Your task to perform on an android device: show emergency info Image 0: 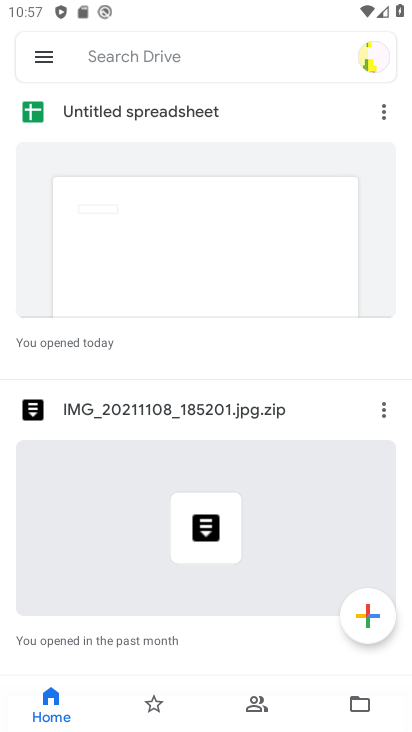
Step 0: press home button
Your task to perform on an android device: show emergency info Image 1: 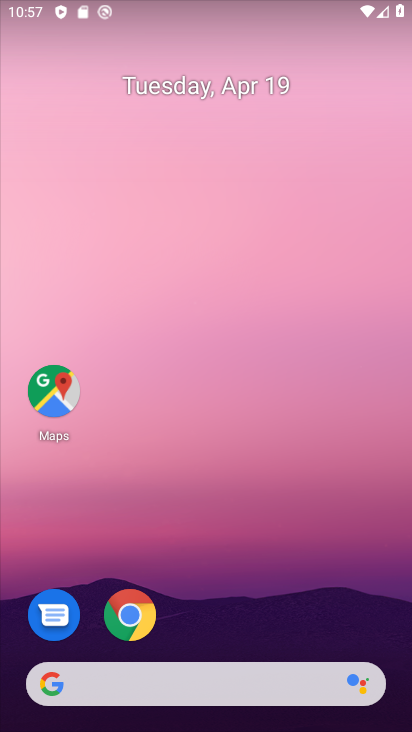
Step 1: click (209, 142)
Your task to perform on an android device: show emergency info Image 2: 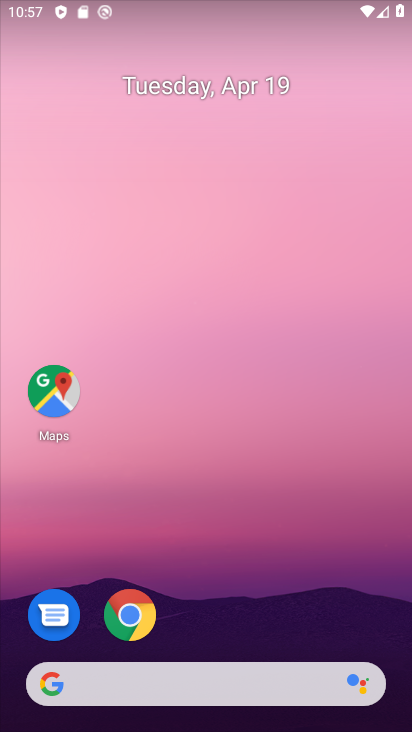
Step 2: drag from (203, 589) to (199, 134)
Your task to perform on an android device: show emergency info Image 3: 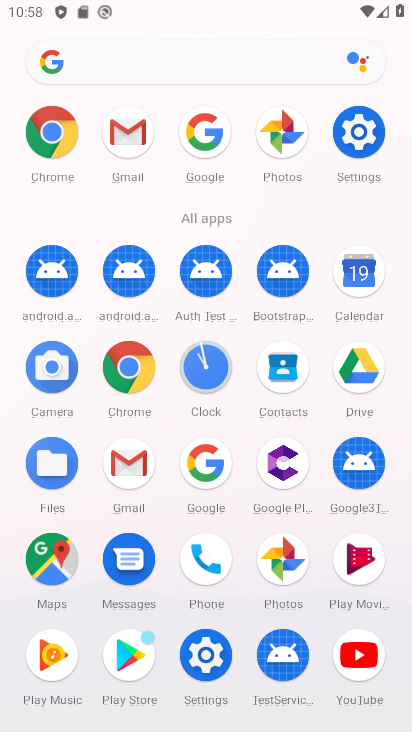
Step 3: click (354, 114)
Your task to perform on an android device: show emergency info Image 4: 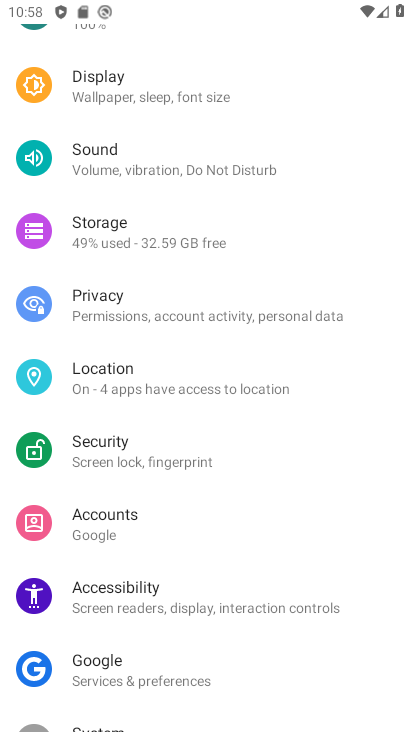
Step 4: drag from (182, 702) to (222, 332)
Your task to perform on an android device: show emergency info Image 5: 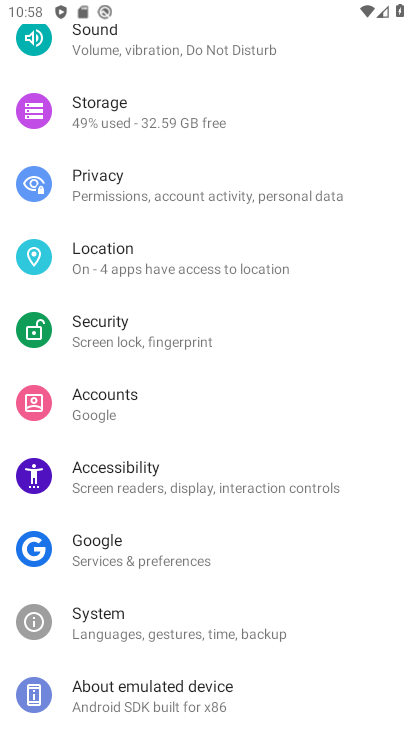
Step 5: click (184, 683)
Your task to perform on an android device: show emergency info Image 6: 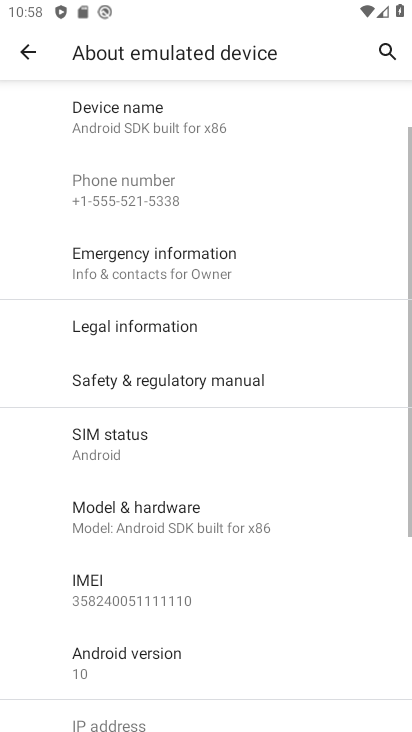
Step 6: click (203, 271)
Your task to perform on an android device: show emergency info Image 7: 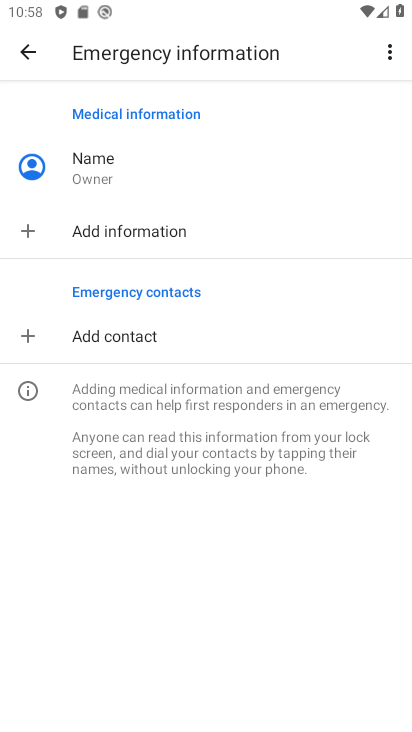
Step 7: task complete